Your task to perform on an android device: read, delete, or share a saved page in the chrome app Image 0: 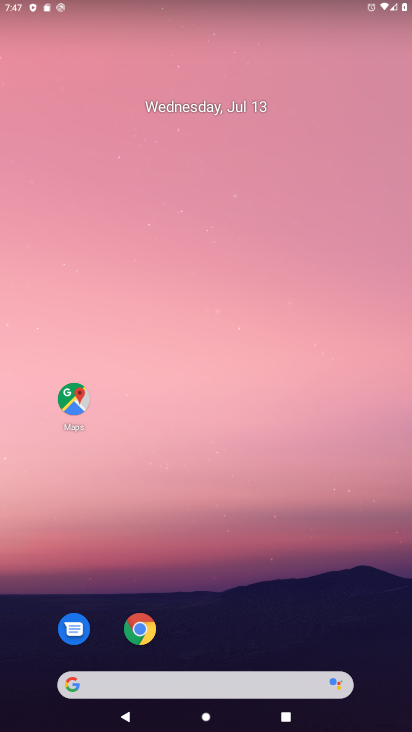
Step 0: click (122, 626)
Your task to perform on an android device: read, delete, or share a saved page in the chrome app Image 1: 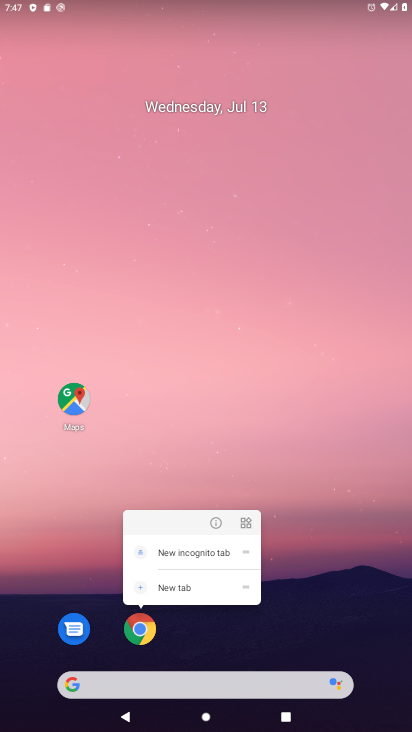
Step 1: click (139, 627)
Your task to perform on an android device: read, delete, or share a saved page in the chrome app Image 2: 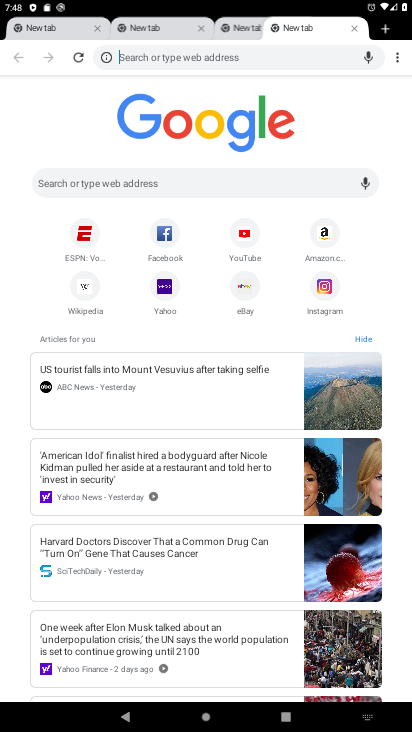
Step 2: click (392, 59)
Your task to perform on an android device: read, delete, or share a saved page in the chrome app Image 3: 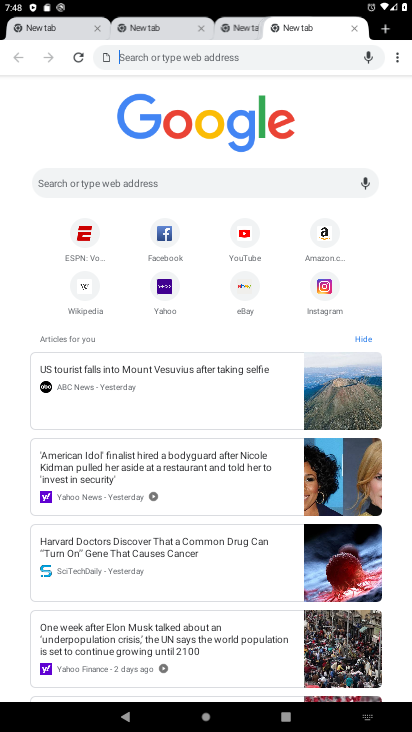
Step 3: click (398, 55)
Your task to perform on an android device: read, delete, or share a saved page in the chrome app Image 4: 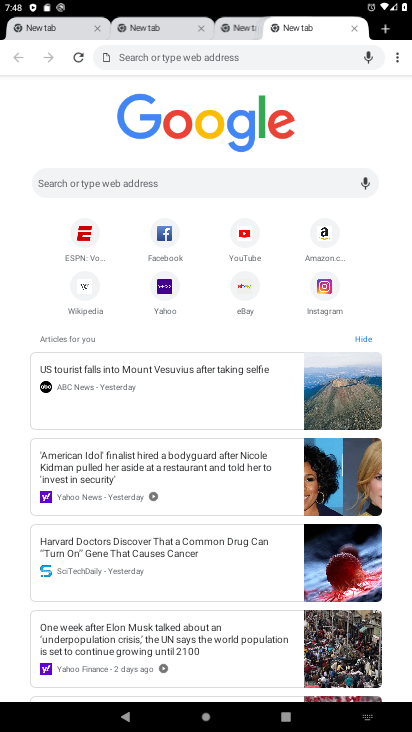
Step 4: task complete